Your task to perform on an android device: Show me recent news Image 0: 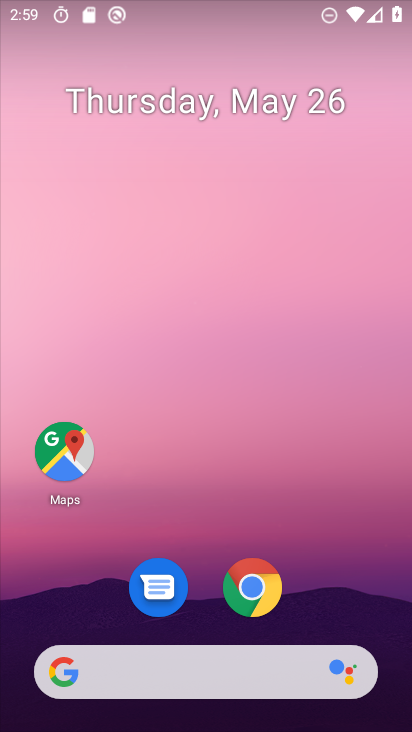
Step 0: drag from (278, 497) to (286, 49)
Your task to perform on an android device: Show me recent news Image 1: 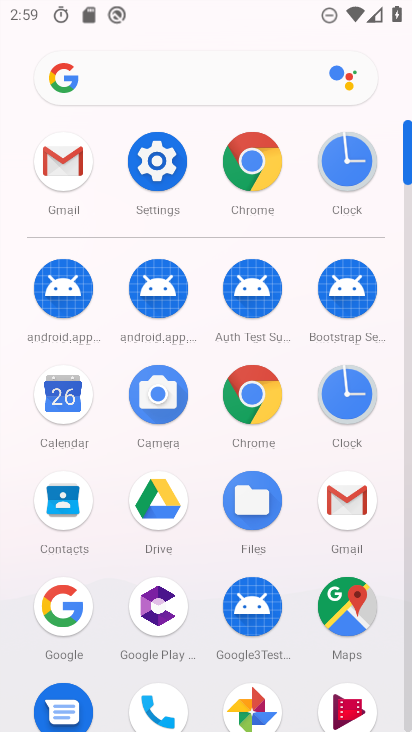
Step 1: click (252, 167)
Your task to perform on an android device: Show me recent news Image 2: 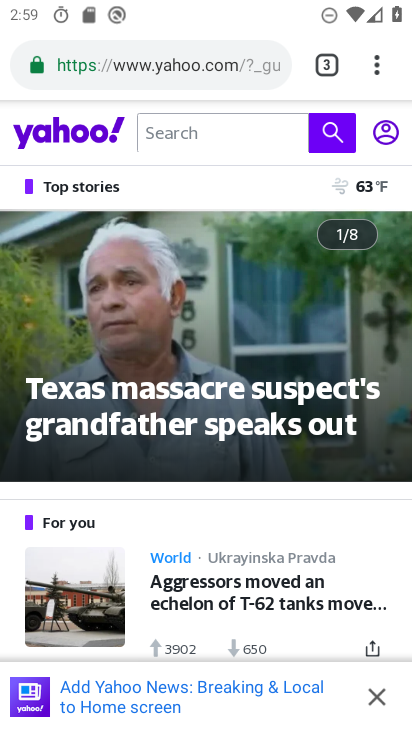
Step 2: click (189, 76)
Your task to perform on an android device: Show me recent news Image 3: 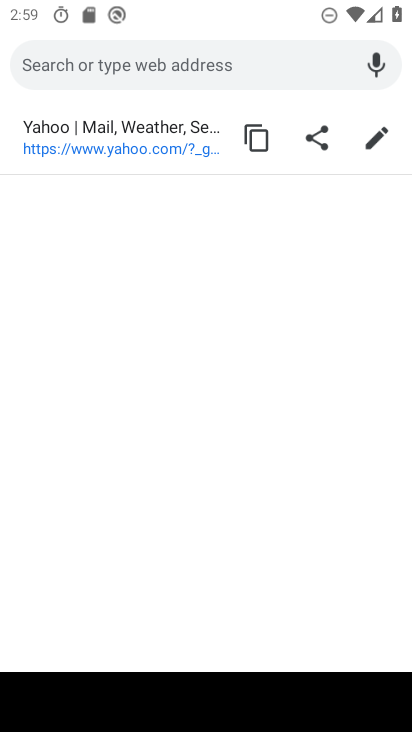
Step 3: type "news"
Your task to perform on an android device: Show me recent news Image 4: 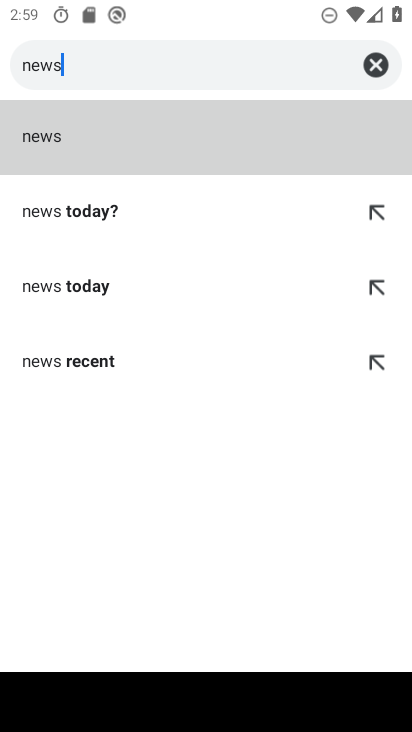
Step 4: click (36, 153)
Your task to perform on an android device: Show me recent news Image 5: 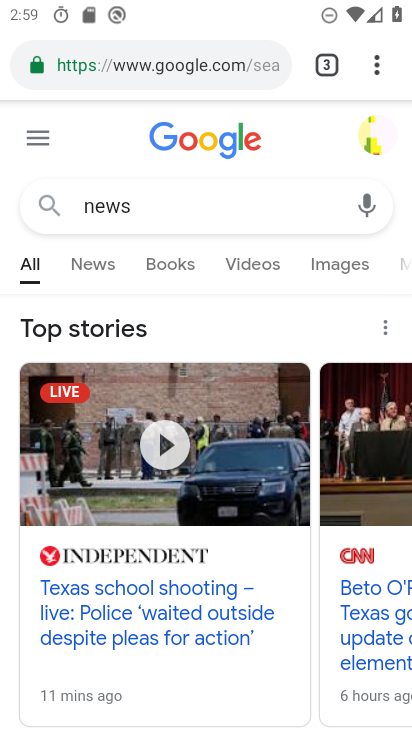
Step 5: click (99, 264)
Your task to perform on an android device: Show me recent news Image 6: 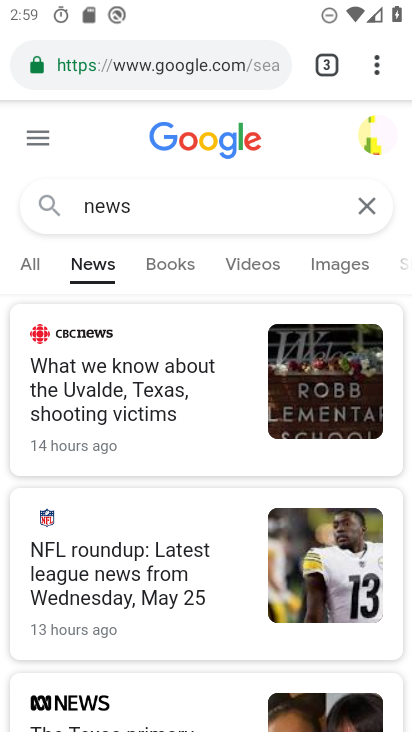
Step 6: task complete